Your task to perform on an android device: Show me productivity apps on the Play Store Image 0: 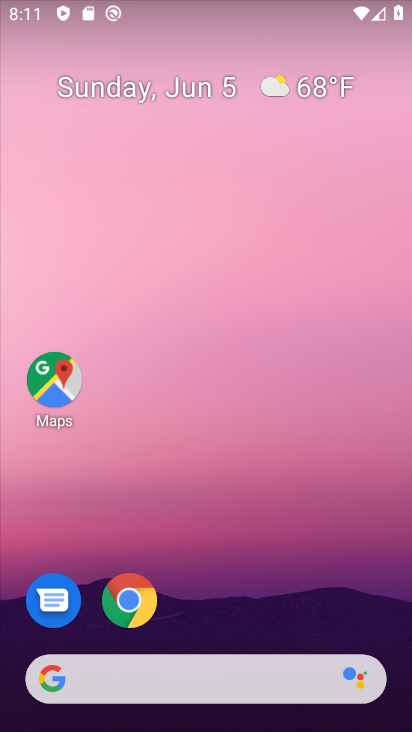
Step 0: drag from (264, 630) to (296, 33)
Your task to perform on an android device: Show me productivity apps on the Play Store Image 1: 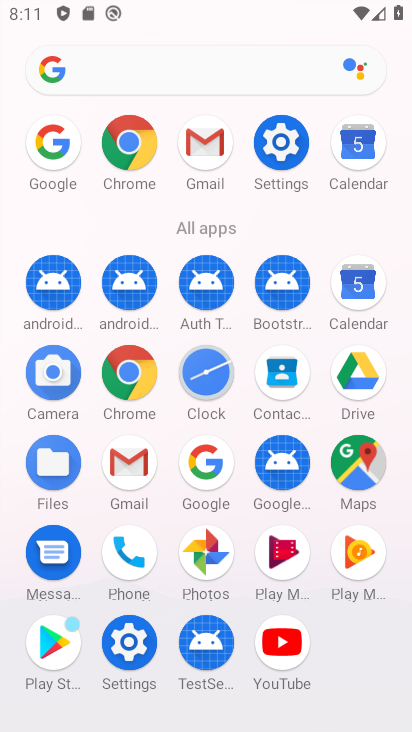
Step 1: click (51, 656)
Your task to perform on an android device: Show me productivity apps on the Play Store Image 2: 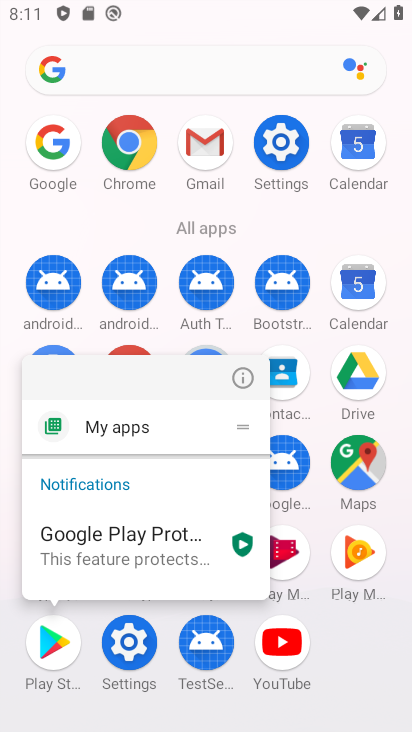
Step 2: click (47, 652)
Your task to perform on an android device: Show me productivity apps on the Play Store Image 3: 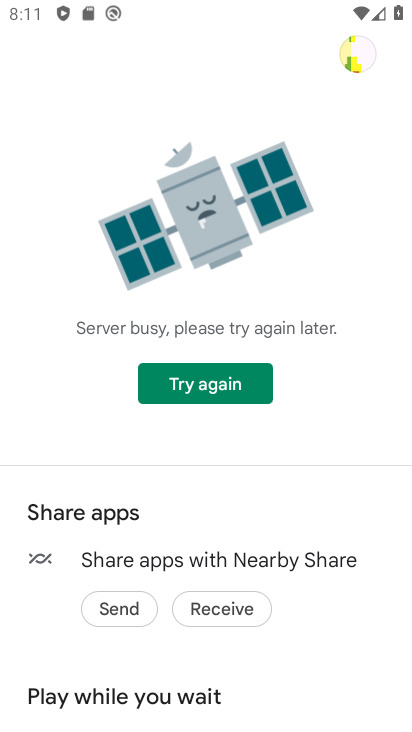
Step 3: click (186, 389)
Your task to perform on an android device: Show me productivity apps on the Play Store Image 4: 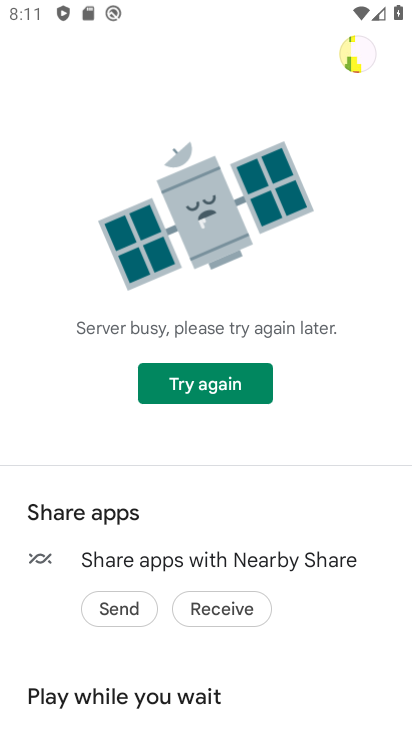
Step 4: click (186, 389)
Your task to perform on an android device: Show me productivity apps on the Play Store Image 5: 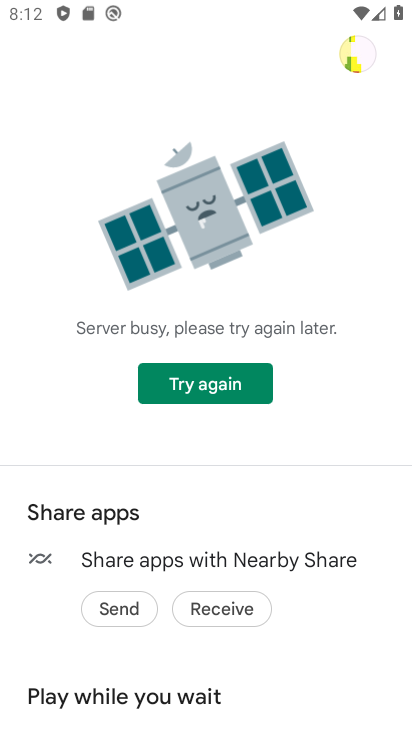
Step 5: click (214, 389)
Your task to perform on an android device: Show me productivity apps on the Play Store Image 6: 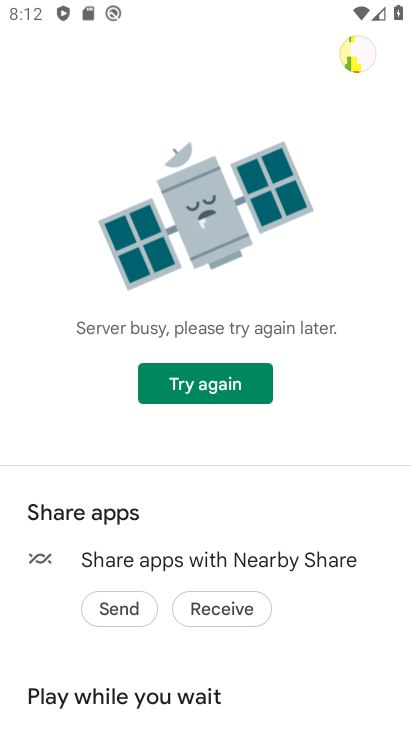
Step 6: task complete